Your task to perform on an android device: delete the emails in spam in the gmail app Image 0: 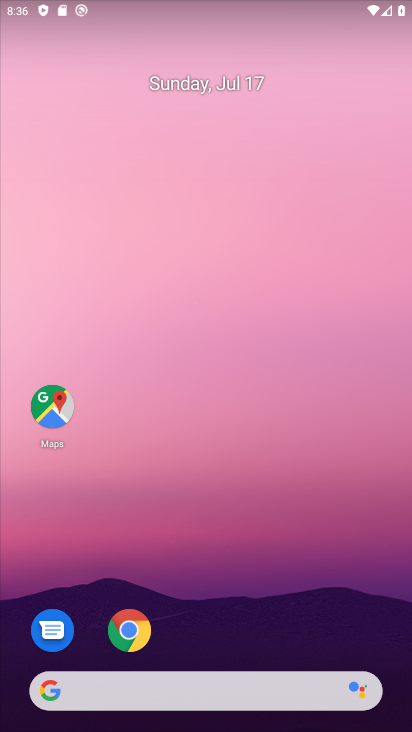
Step 0: drag from (258, 618) to (243, 94)
Your task to perform on an android device: delete the emails in spam in the gmail app Image 1: 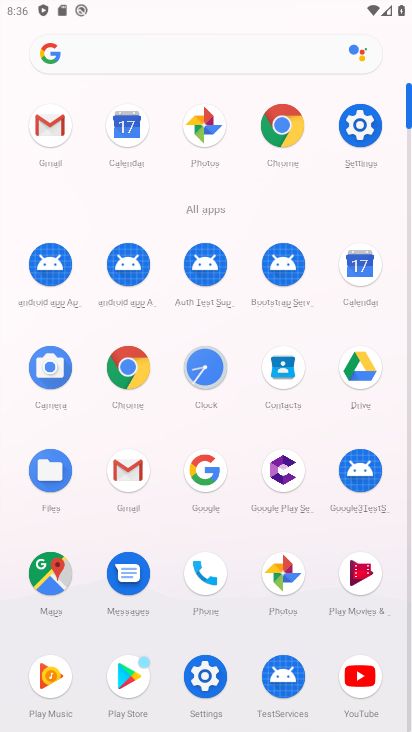
Step 1: click (41, 127)
Your task to perform on an android device: delete the emails in spam in the gmail app Image 2: 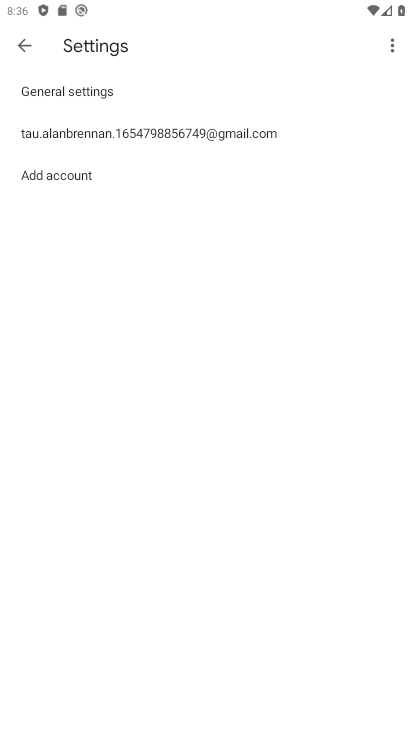
Step 2: click (12, 52)
Your task to perform on an android device: delete the emails in spam in the gmail app Image 3: 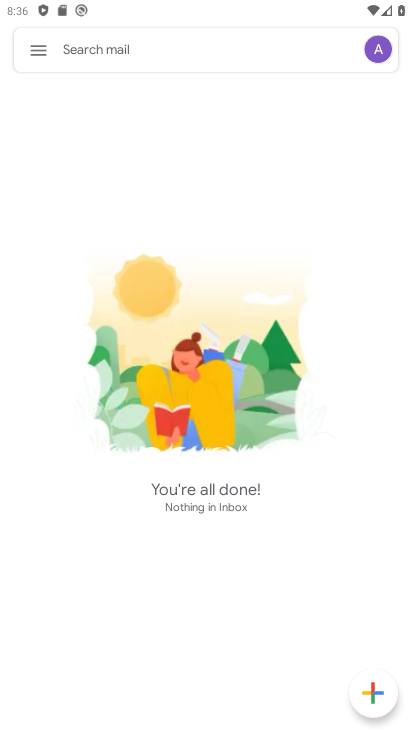
Step 3: task complete